Your task to perform on an android device: open the mobile data screen to see how much data has been used Image 0: 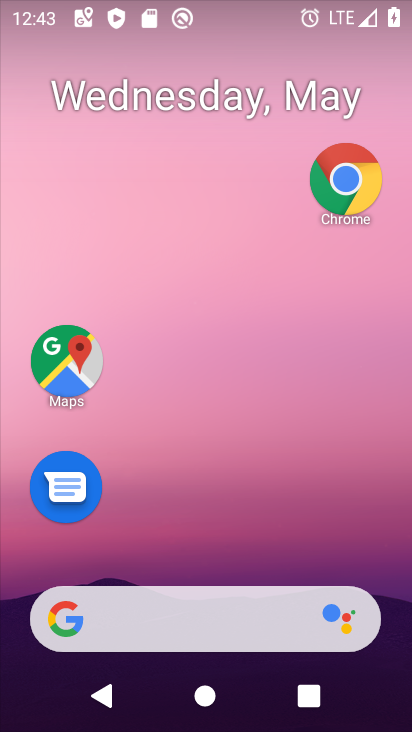
Step 0: drag from (197, 548) to (231, 1)
Your task to perform on an android device: open the mobile data screen to see how much data has been used Image 1: 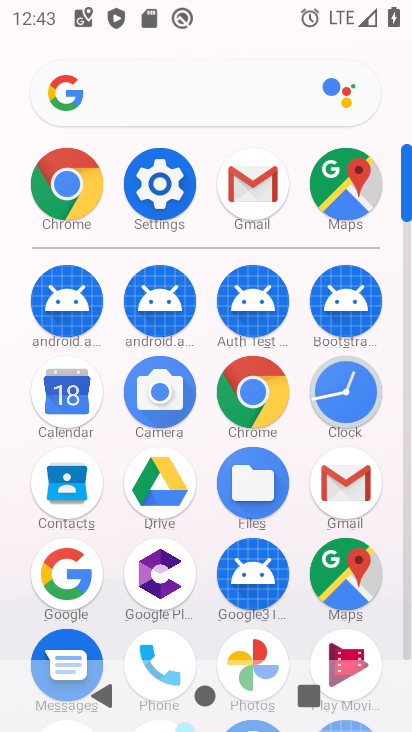
Step 1: click (169, 183)
Your task to perform on an android device: open the mobile data screen to see how much data has been used Image 2: 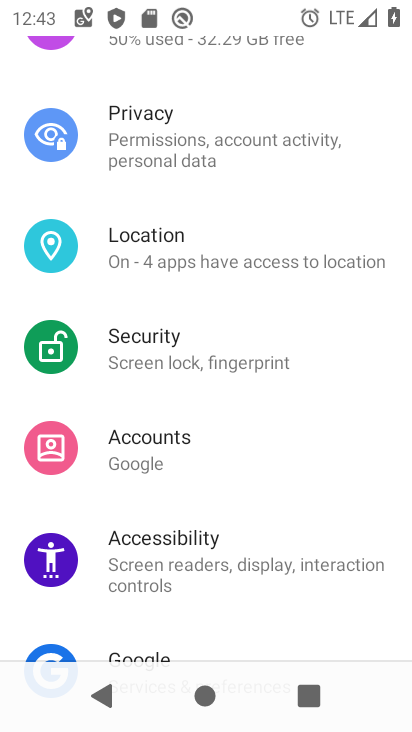
Step 2: drag from (190, 190) to (225, 689)
Your task to perform on an android device: open the mobile data screen to see how much data has been used Image 3: 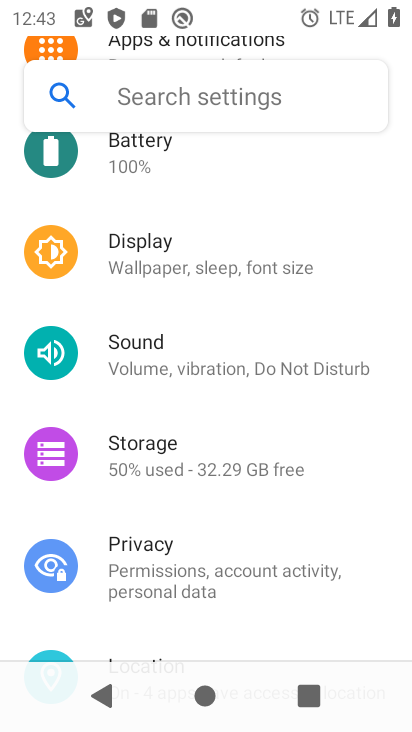
Step 3: drag from (194, 223) to (302, 701)
Your task to perform on an android device: open the mobile data screen to see how much data has been used Image 4: 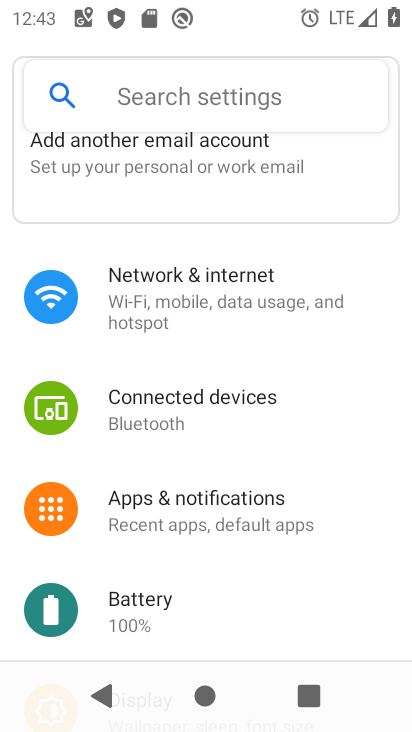
Step 4: click (169, 298)
Your task to perform on an android device: open the mobile data screen to see how much data has been used Image 5: 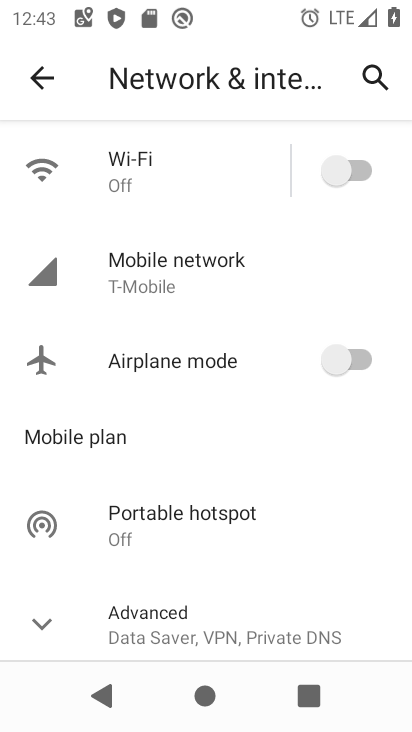
Step 5: click (218, 290)
Your task to perform on an android device: open the mobile data screen to see how much data has been used Image 6: 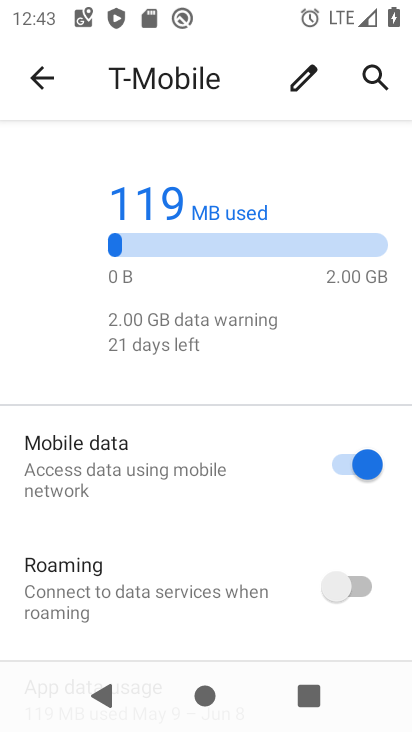
Step 6: drag from (180, 550) to (235, 177)
Your task to perform on an android device: open the mobile data screen to see how much data has been used Image 7: 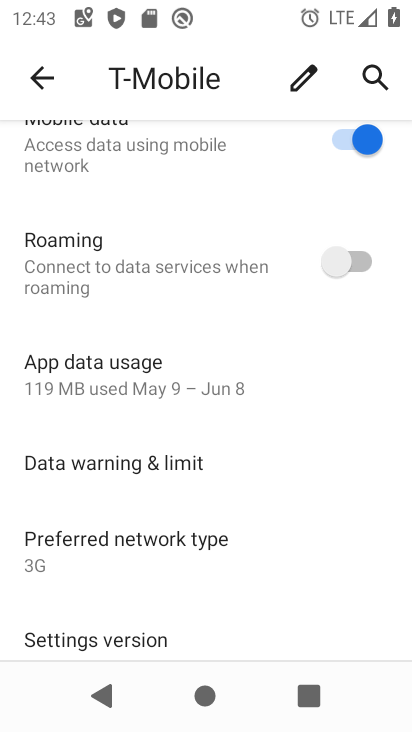
Step 7: drag from (205, 563) to (295, 189)
Your task to perform on an android device: open the mobile data screen to see how much data has been used Image 8: 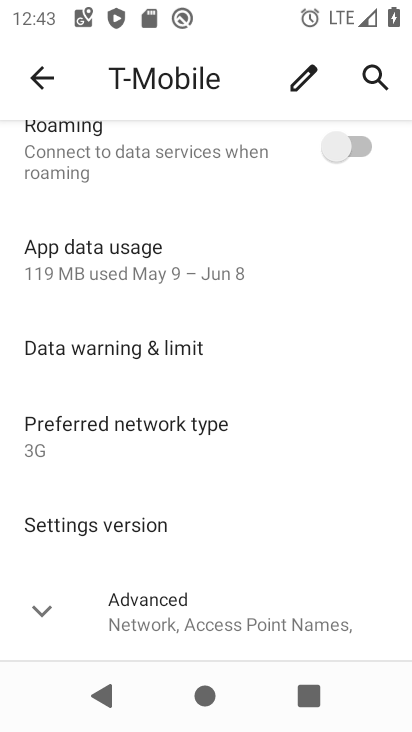
Step 8: drag from (248, 202) to (341, 669)
Your task to perform on an android device: open the mobile data screen to see how much data has been used Image 9: 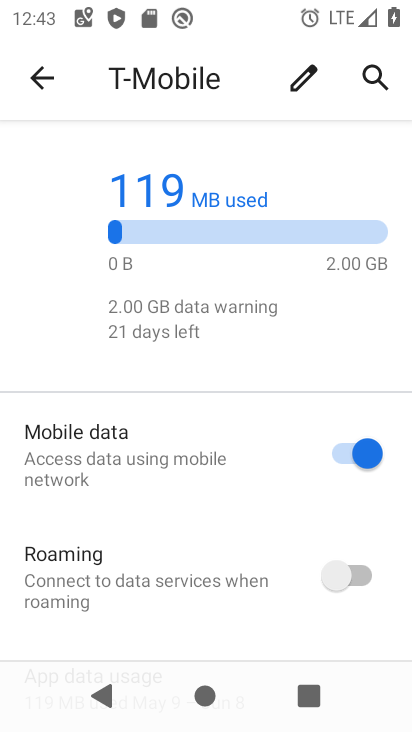
Step 9: click (211, 242)
Your task to perform on an android device: open the mobile data screen to see how much data has been used Image 10: 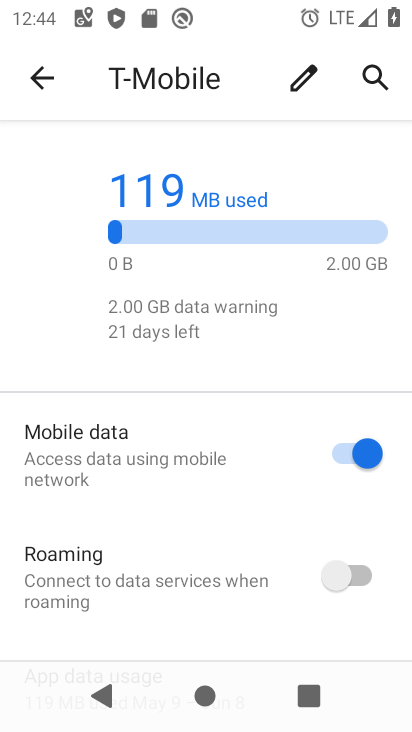
Step 10: task complete